Your task to perform on an android device: turn on data saver in the chrome app Image 0: 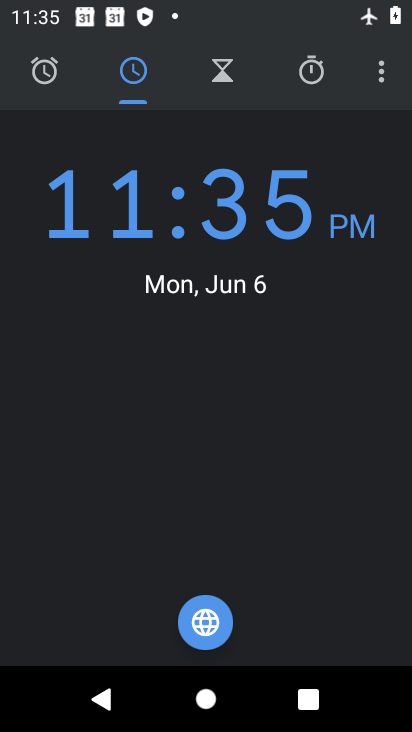
Step 0: press home button
Your task to perform on an android device: turn on data saver in the chrome app Image 1: 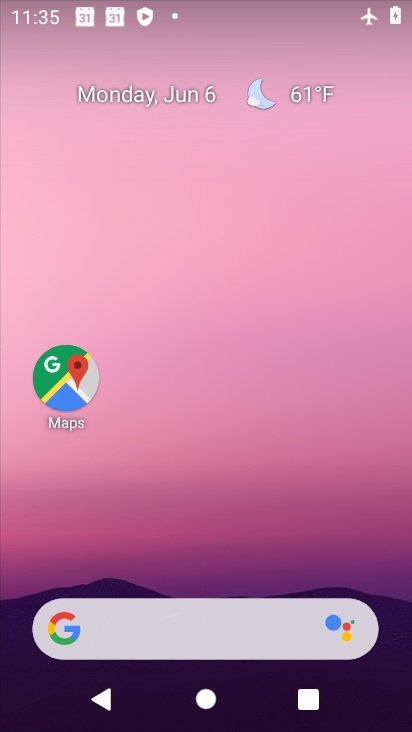
Step 1: drag from (222, 494) to (231, 66)
Your task to perform on an android device: turn on data saver in the chrome app Image 2: 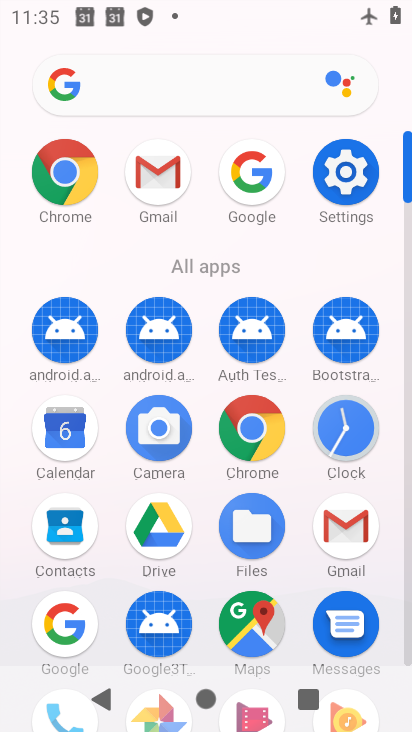
Step 2: click (66, 169)
Your task to perform on an android device: turn on data saver in the chrome app Image 3: 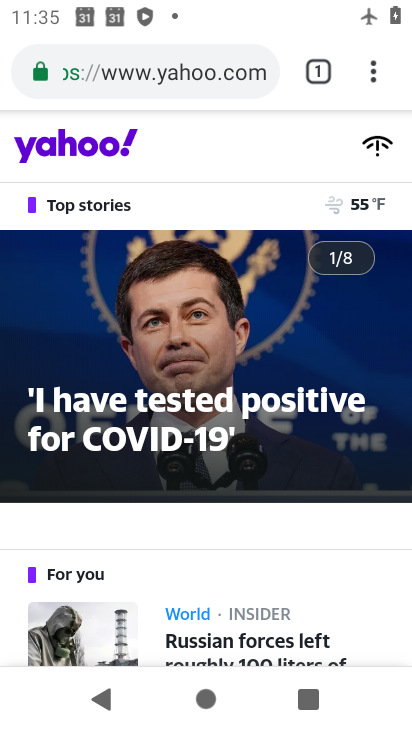
Step 3: click (370, 77)
Your task to perform on an android device: turn on data saver in the chrome app Image 4: 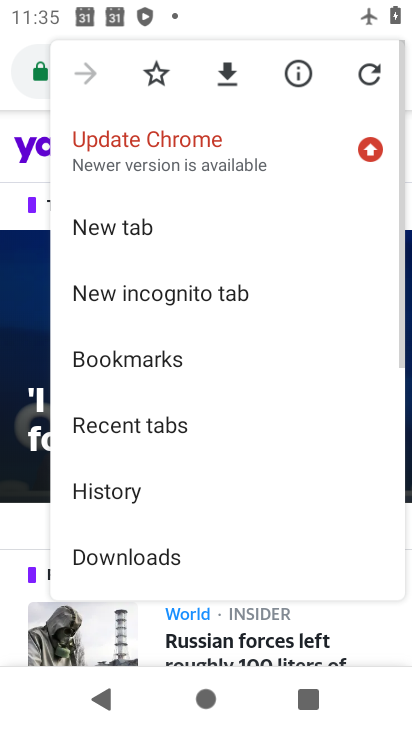
Step 4: drag from (216, 500) to (208, 134)
Your task to perform on an android device: turn on data saver in the chrome app Image 5: 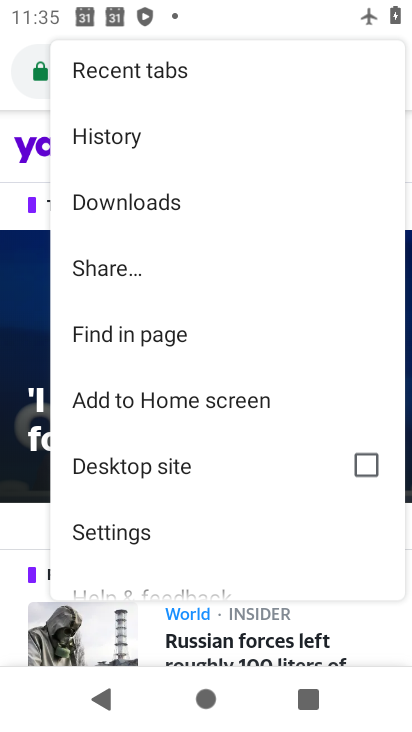
Step 5: click (157, 514)
Your task to perform on an android device: turn on data saver in the chrome app Image 6: 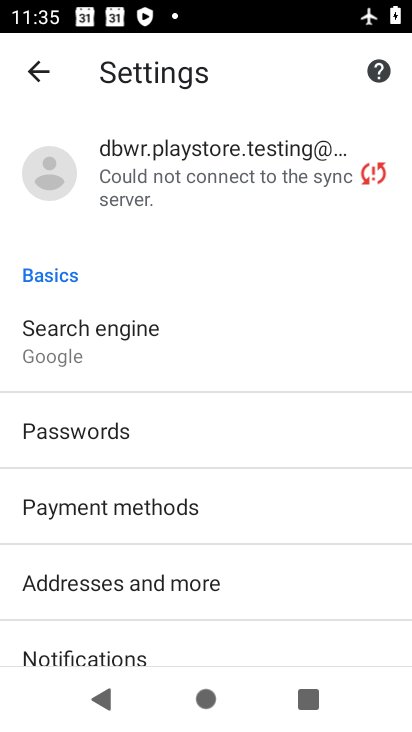
Step 6: drag from (287, 610) to (294, 129)
Your task to perform on an android device: turn on data saver in the chrome app Image 7: 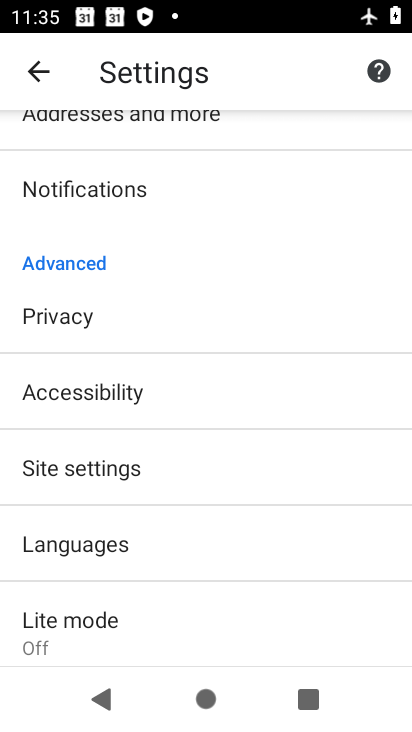
Step 7: click (107, 628)
Your task to perform on an android device: turn on data saver in the chrome app Image 8: 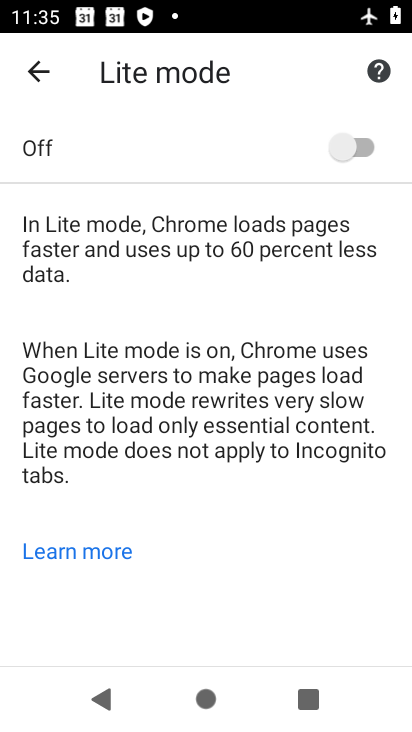
Step 8: click (346, 149)
Your task to perform on an android device: turn on data saver in the chrome app Image 9: 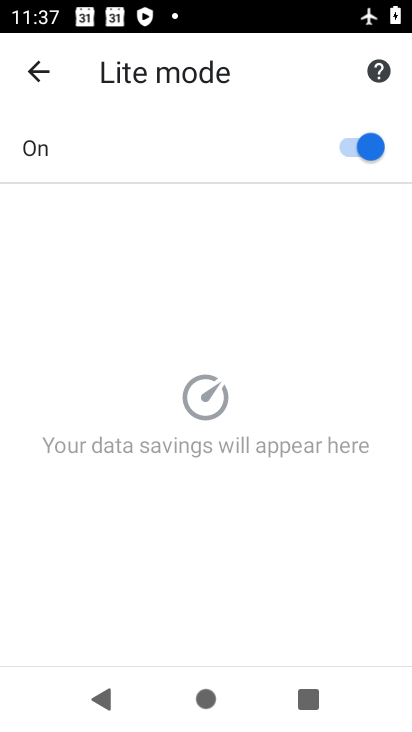
Step 9: task complete